Your task to perform on an android device: delete a single message in the gmail app Image 0: 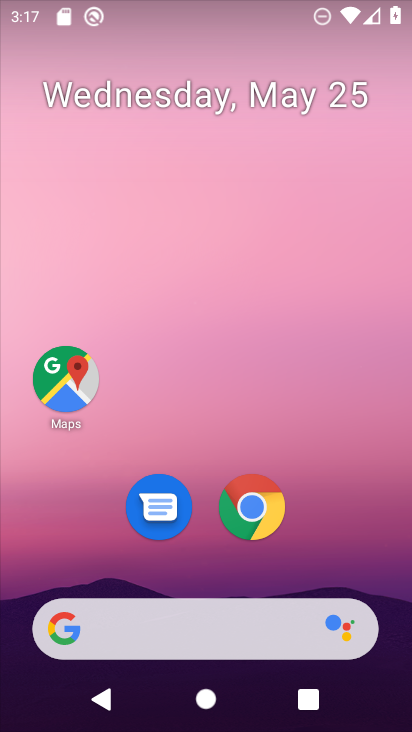
Step 0: drag from (208, 626) to (271, 156)
Your task to perform on an android device: delete a single message in the gmail app Image 1: 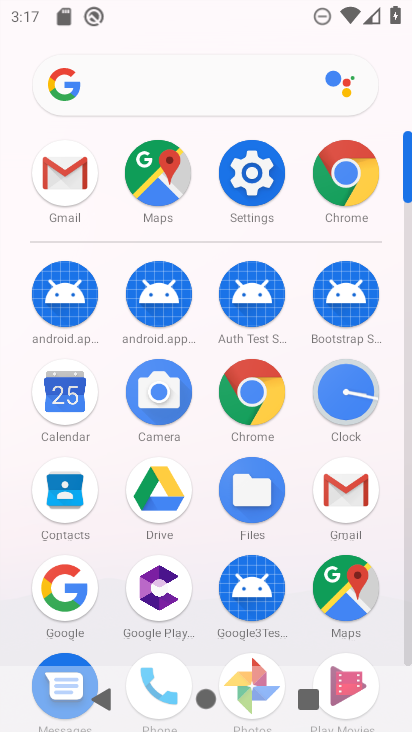
Step 1: click (357, 490)
Your task to perform on an android device: delete a single message in the gmail app Image 2: 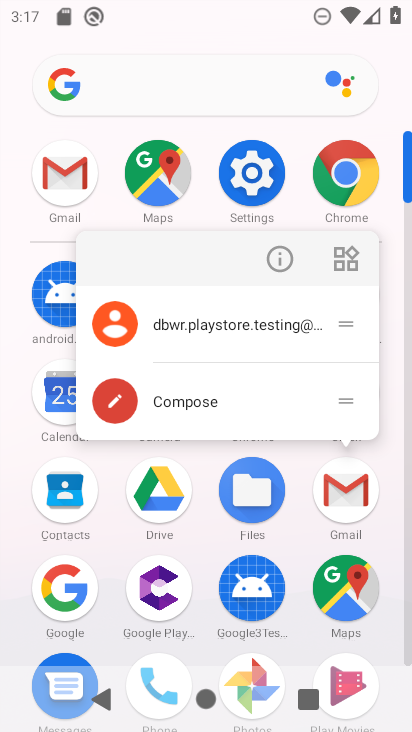
Step 2: click (332, 500)
Your task to perform on an android device: delete a single message in the gmail app Image 3: 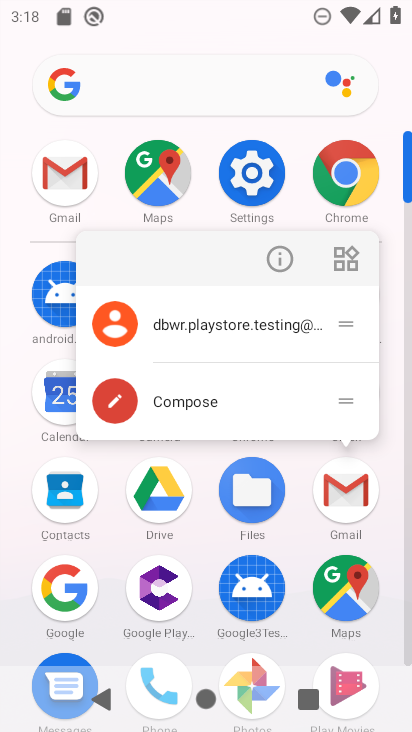
Step 3: click (338, 516)
Your task to perform on an android device: delete a single message in the gmail app Image 4: 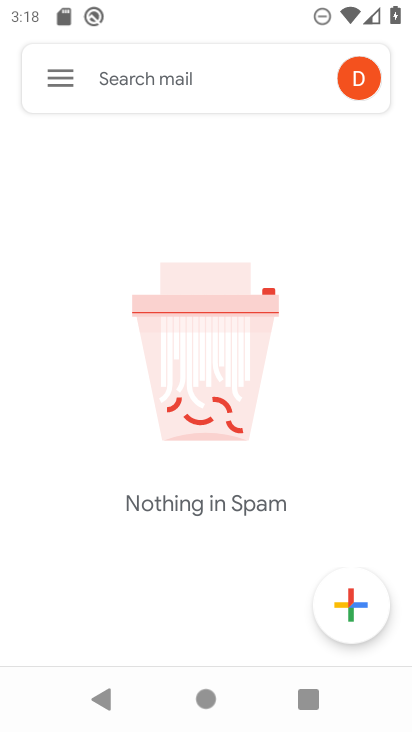
Step 4: click (63, 92)
Your task to perform on an android device: delete a single message in the gmail app Image 5: 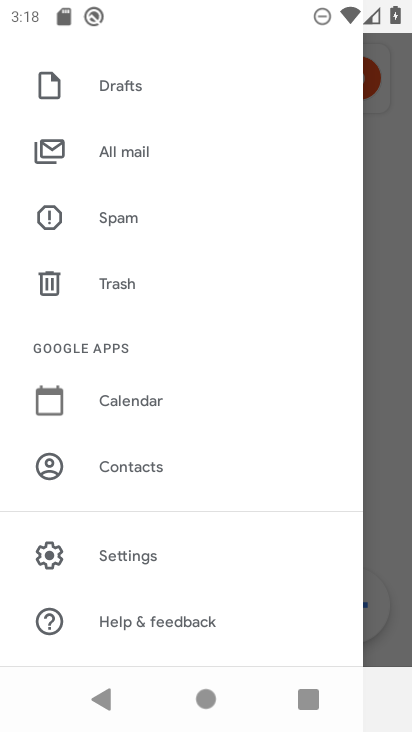
Step 5: click (156, 162)
Your task to perform on an android device: delete a single message in the gmail app Image 6: 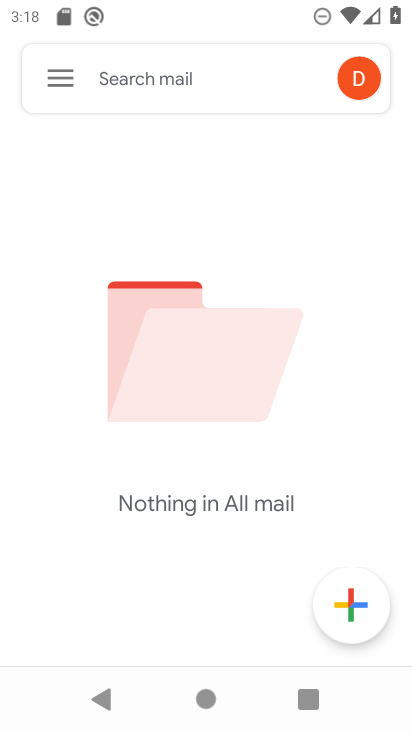
Step 6: task complete